Your task to perform on an android device: Open calendar and show me the fourth week of next month Image 0: 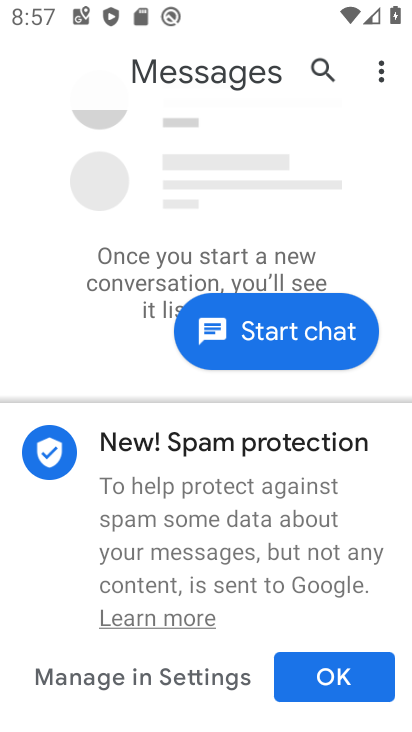
Step 0: press home button
Your task to perform on an android device: Open calendar and show me the fourth week of next month Image 1: 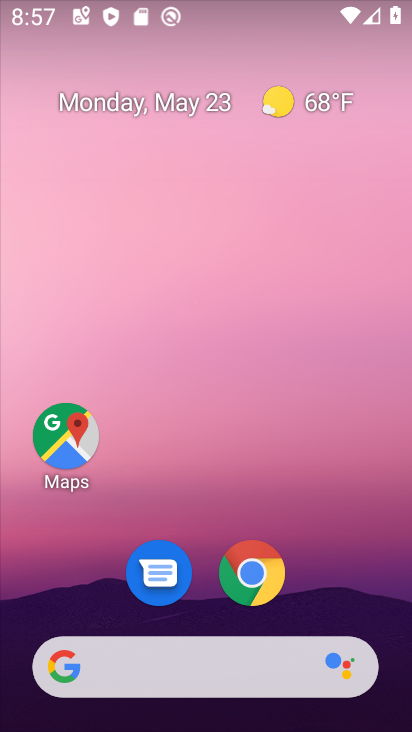
Step 1: drag from (313, 606) to (284, 254)
Your task to perform on an android device: Open calendar and show me the fourth week of next month Image 2: 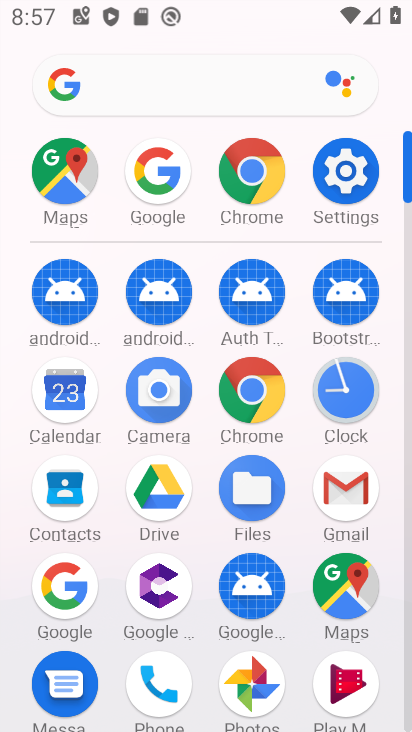
Step 2: drag from (295, 550) to (297, 443)
Your task to perform on an android device: Open calendar and show me the fourth week of next month Image 3: 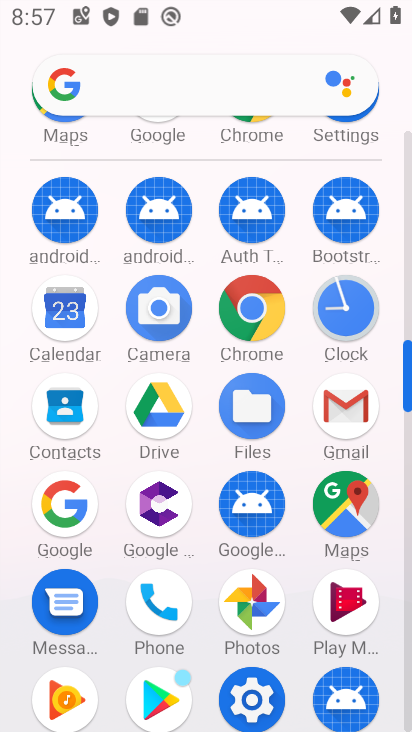
Step 3: drag from (316, 544) to (327, 350)
Your task to perform on an android device: Open calendar and show me the fourth week of next month Image 4: 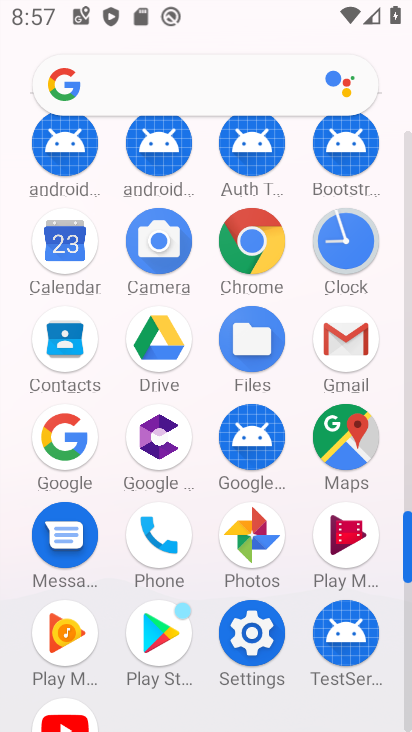
Step 4: click (59, 253)
Your task to perform on an android device: Open calendar and show me the fourth week of next month Image 5: 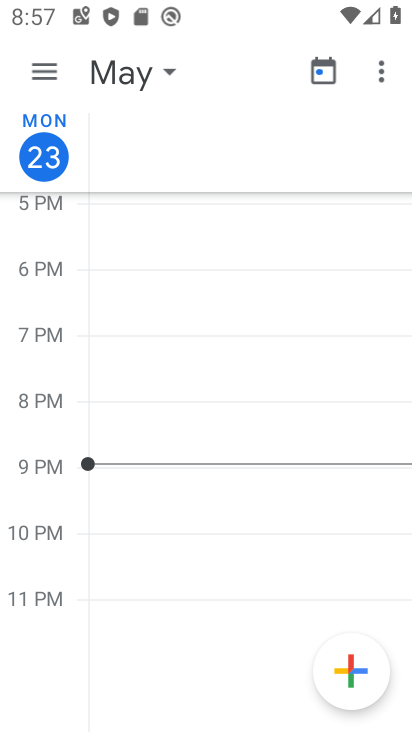
Step 5: click (153, 84)
Your task to perform on an android device: Open calendar and show me the fourth week of next month Image 6: 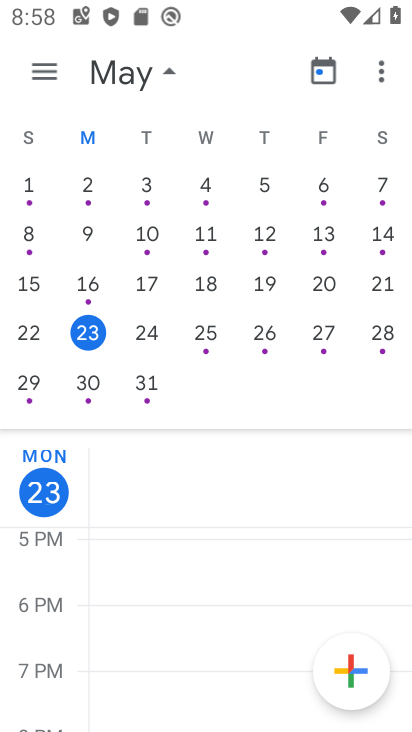
Step 6: drag from (366, 313) to (16, 363)
Your task to perform on an android device: Open calendar and show me the fourth week of next month Image 7: 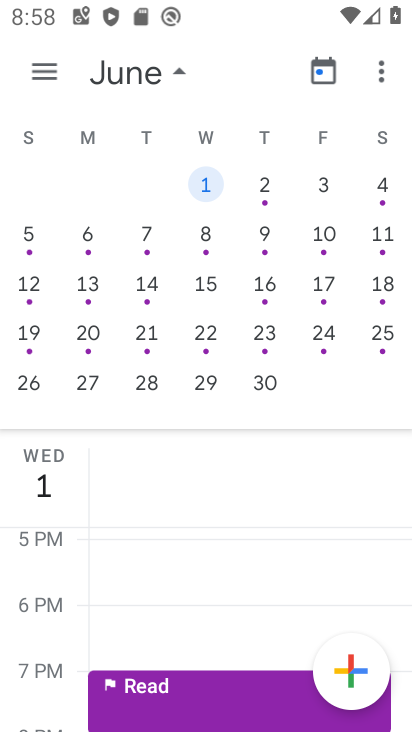
Step 7: drag from (260, 346) to (200, 332)
Your task to perform on an android device: Open calendar and show me the fourth week of next month Image 8: 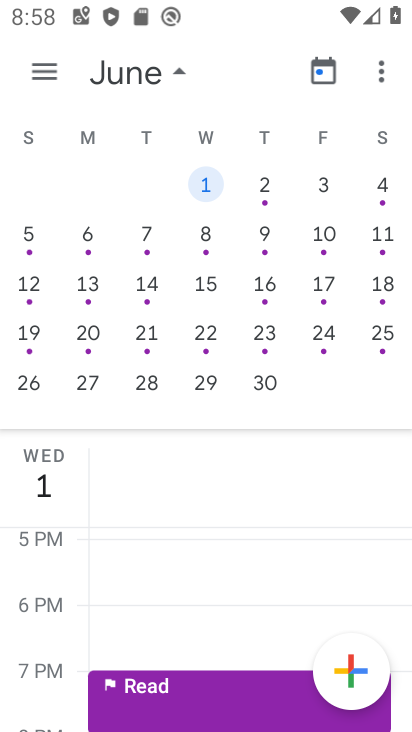
Step 8: click (32, 336)
Your task to perform on an android device: Open calendar and show me the fourth week of next month Image 9: 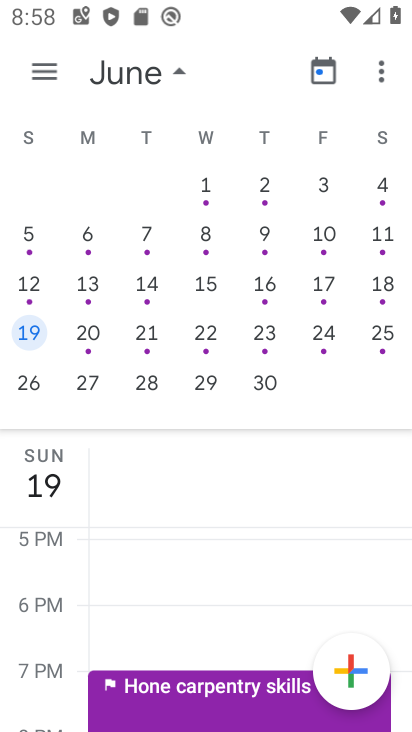
Step 9: task complete